Your task to perform on an android device: Open Reddit.com Image 0: 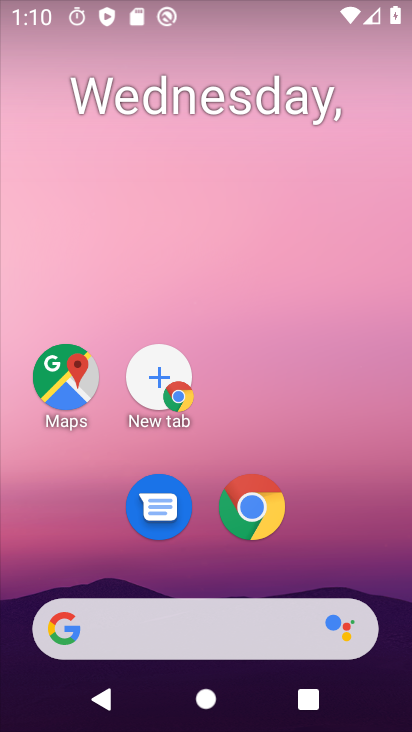
Step 0: task complete